Your task to perform on an android device: Search for pizza restaurants on Maps Image 0: 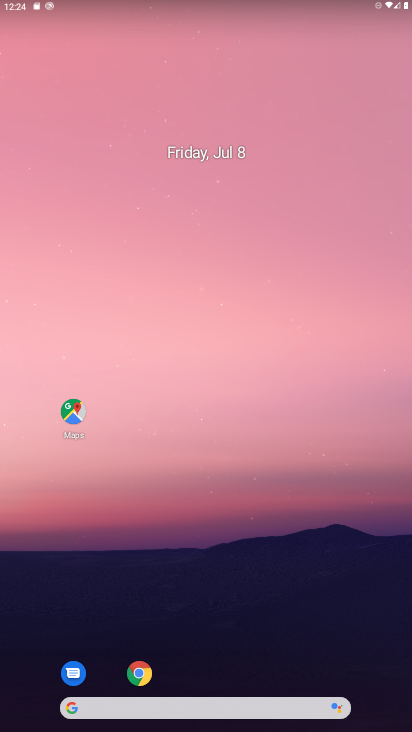
Step 0: click (78, 409)
Your task to perform on an android device: Search for pizza restaurants on Maps Image 1: 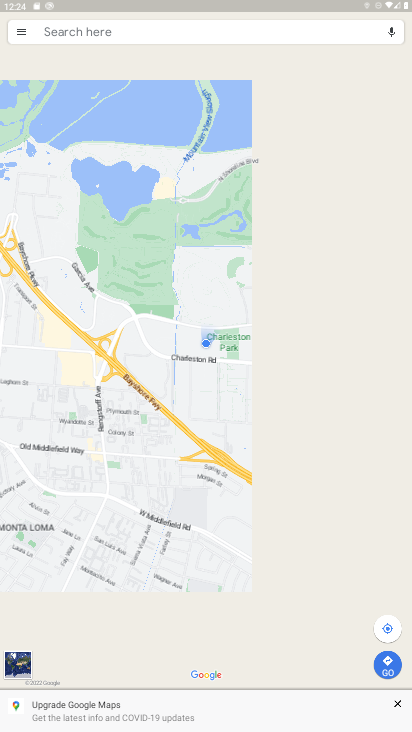
Step 1: click (142, 32)
Your task to perform on an android device: Search for pizza restaurants on Maps Image 2: 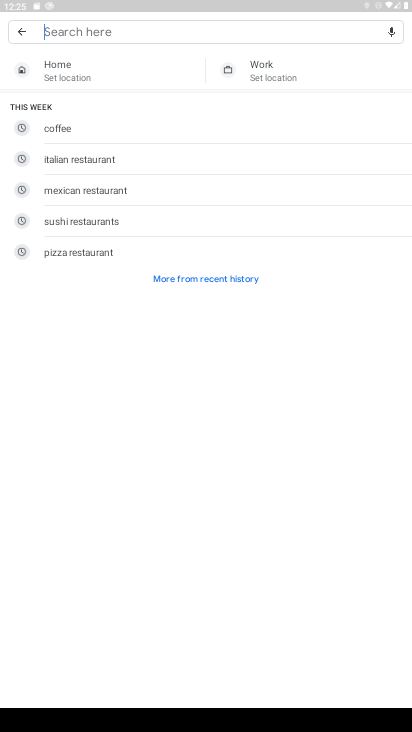
Step 2: type "pizza restaurants"
Your task to perform on an android device: Search for pizza restaurants on Maps Image 3: 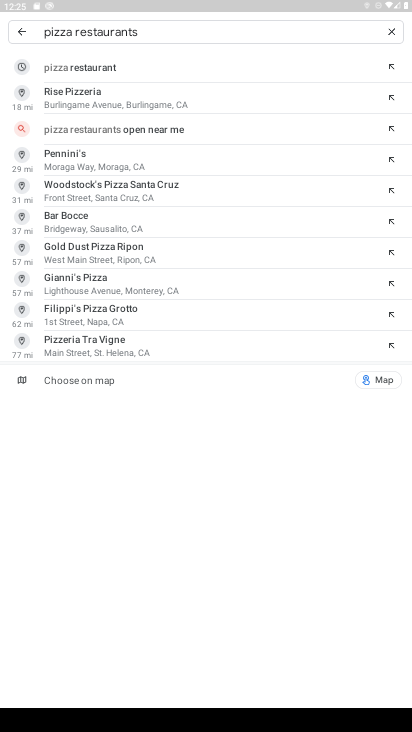
Step 3: click (78, 129)
Your task to perform on an android device: Search for pizza restaurants on Maps Image 4: 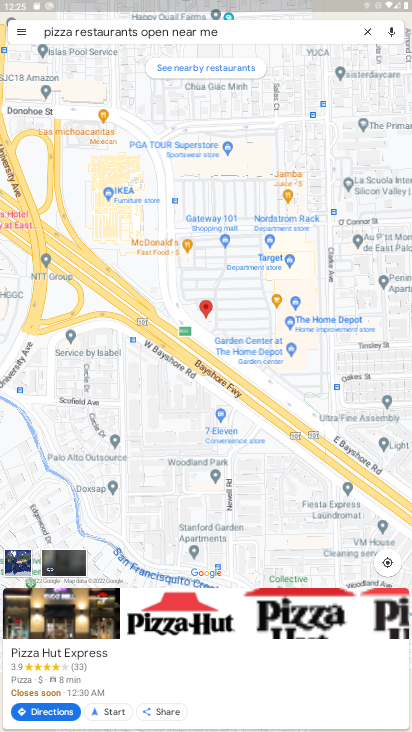
Step 4: task complete